Your task to perform on an android device: Go to Yahoo.com Image 0: 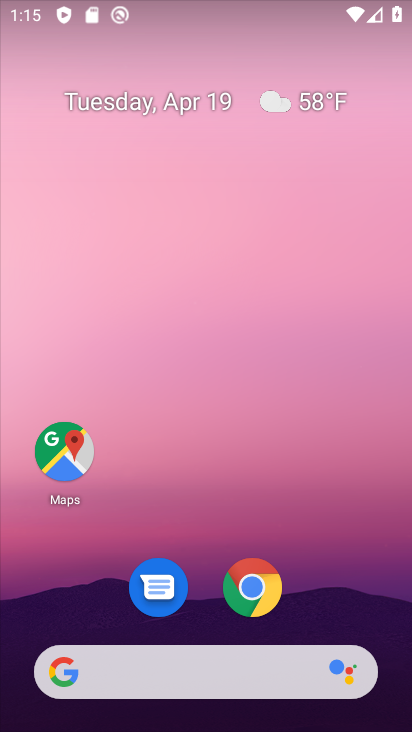
Step 0: click (247, 594)
Your task to perform on an android device: Go to Yahoo.com Image 1: 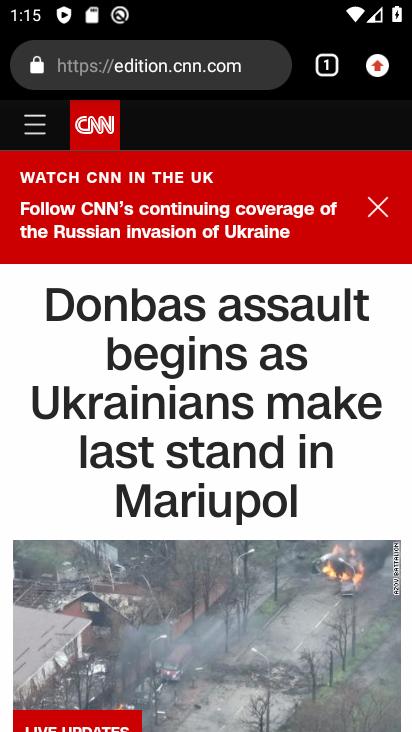
Step 1: drag from (250, 580) to (231, 147)
Your task to perform on an android device: Go to Yahoo.com Image 2: 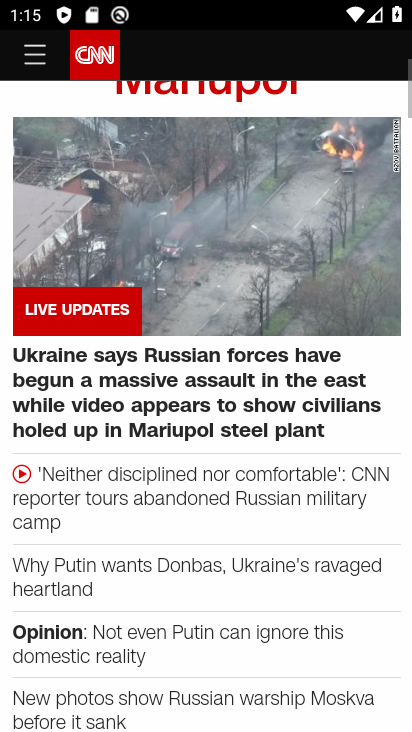
Step 2: click (327, 70)
Your task to perform on an android device: Go to Yahoo.com Image 3: 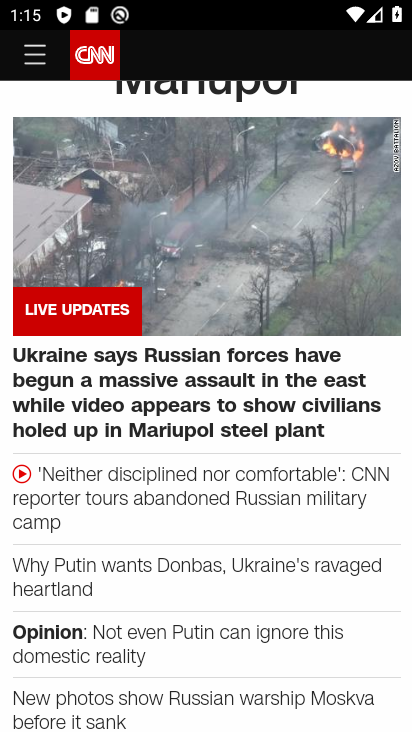
Step 3: drag from (335, 210) to (286, 588)
Your task to perform on an android device: Go to Yahoo.com Image 4: 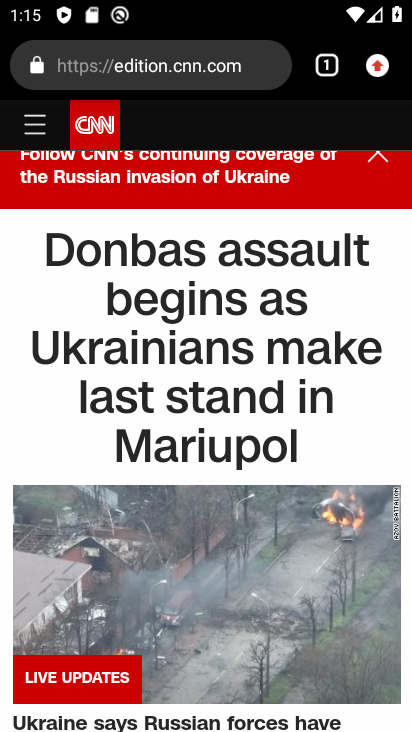
Step 4: click (322, 71)
Your task to perform on an android device: Go to Yahoo.com Image 5: 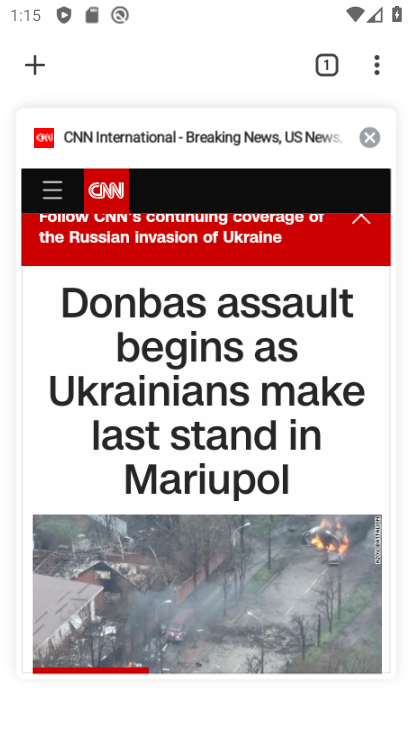
Step 5: click (30, 58)
Your task to perform on an android device: Go to Yahoo.com Image 6: 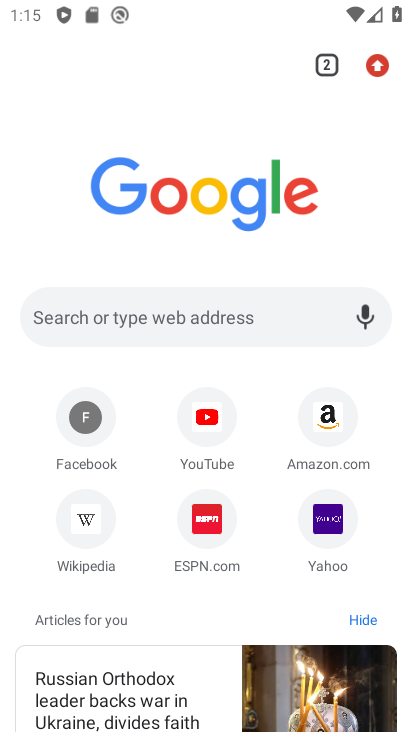
Step 6: click (330, 527)
Your task to perform on an android device: Go to Yahoo.com Image 7: 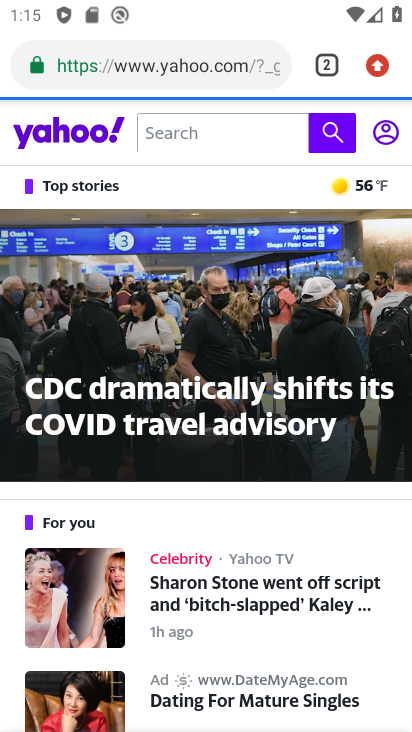
Step 7: task complete